Your task to perform on an android device: read, delete, or share a saved page in the chrome app Image 0: 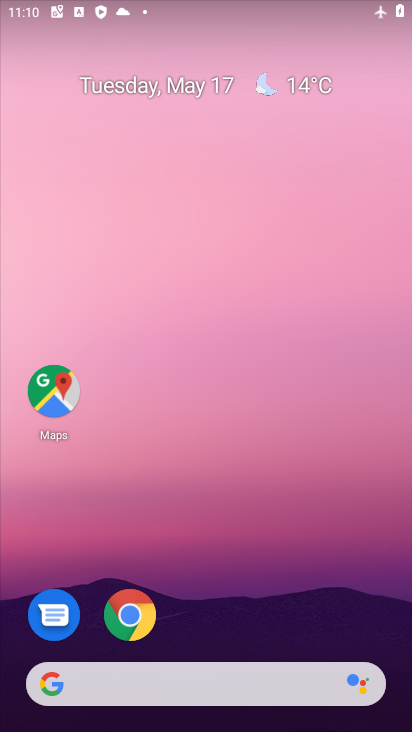
Step 0: click (122, 613)
Your task to perform on an android device: read, delete, or share a saved page in the chrome app Image 1: 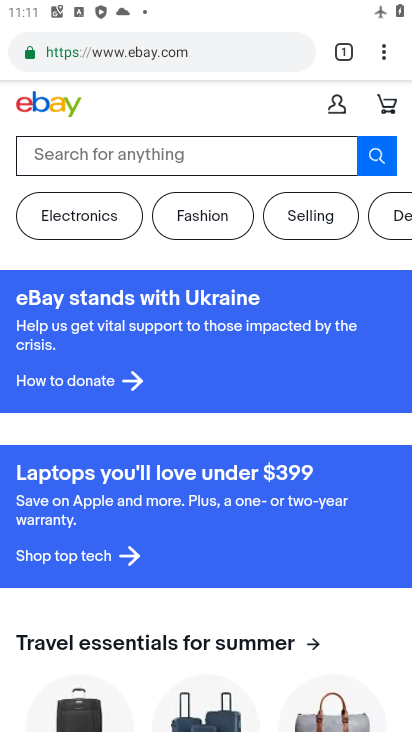
Step 1: click (383, 53)
Your task to perform on an android device: read, delete, or share a saved page in the chrome app Image 2: 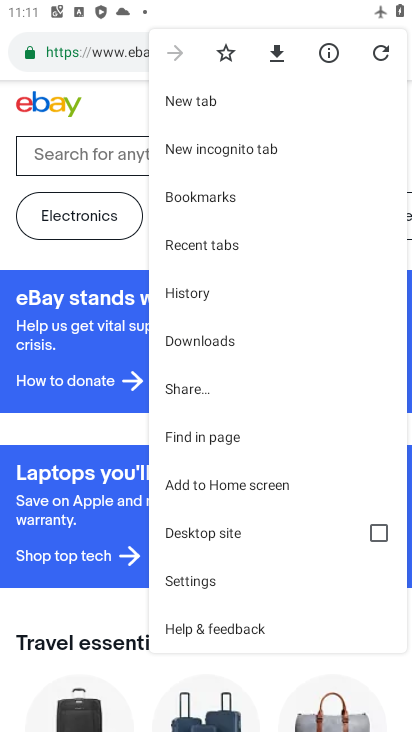
Step 2: click (194, 346)
Your task to perform on an android device: read, delete, or share a saved page in the chrome app Image 3: 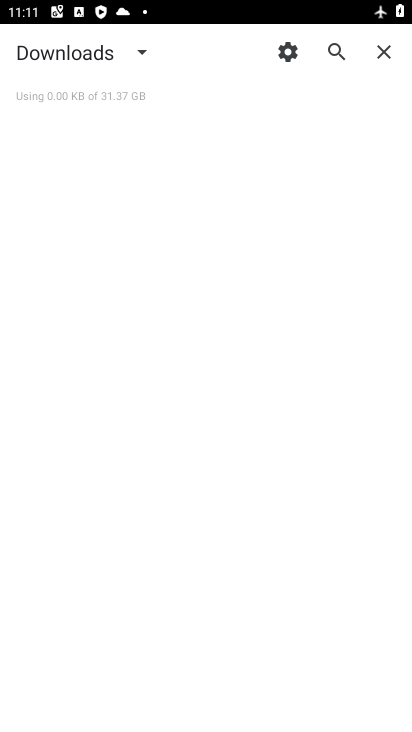
Step 3: click (139, 54)
Your task to perform on an android device: read, delete, or share a saved page in the chrome app Image 4: 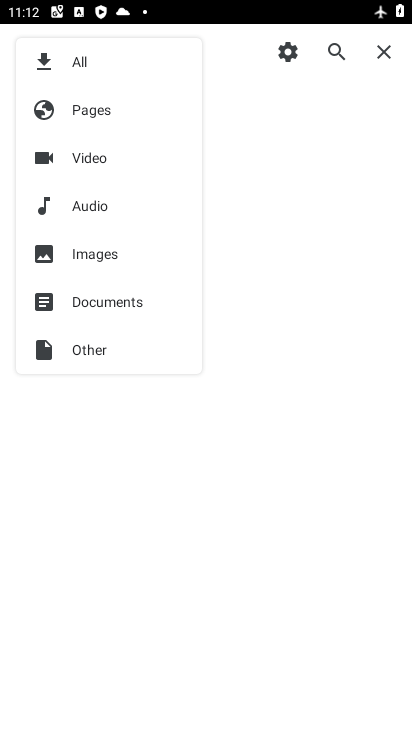
Step 4: click (78, 105)
Your task to perform on an android device: read, delete, or share a saved page in the chrome app Image 5: 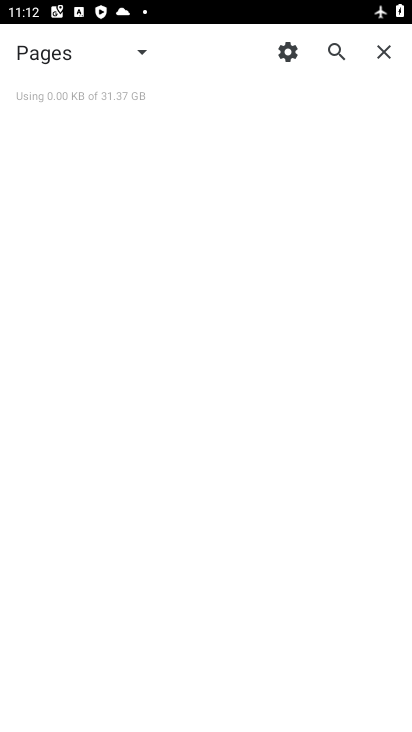
Step 5: task complete